Your task to perform on an android device: check android version Image 0: 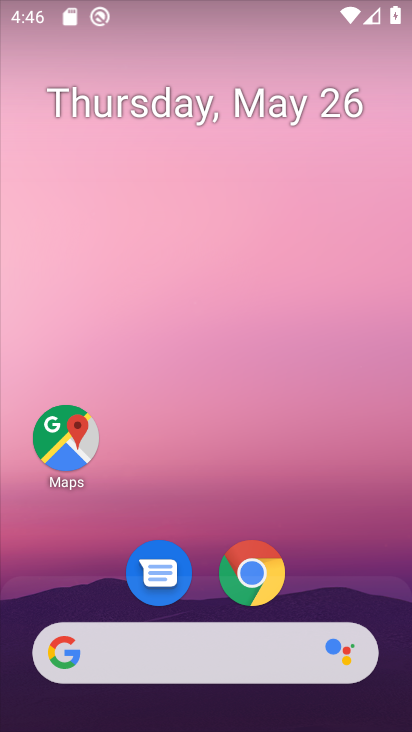
Step 0: drag from (325, 609) to (273, 263)
Your task to perform on an android device: check android version Image 1: 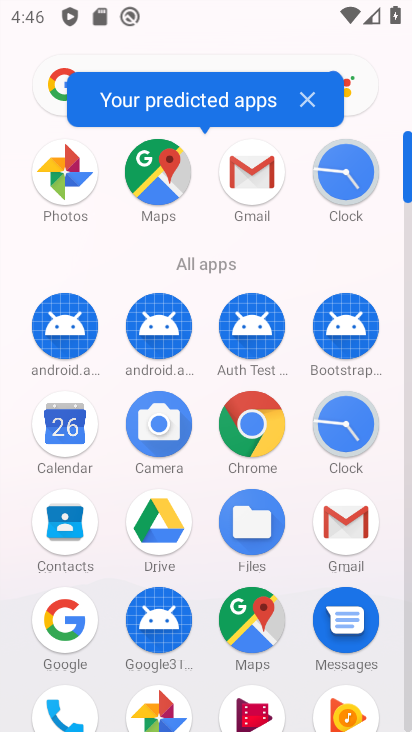
Step 1: drag from (285, 642) to (298, 335)
Your task to perform on an android device: check android version Image 2: 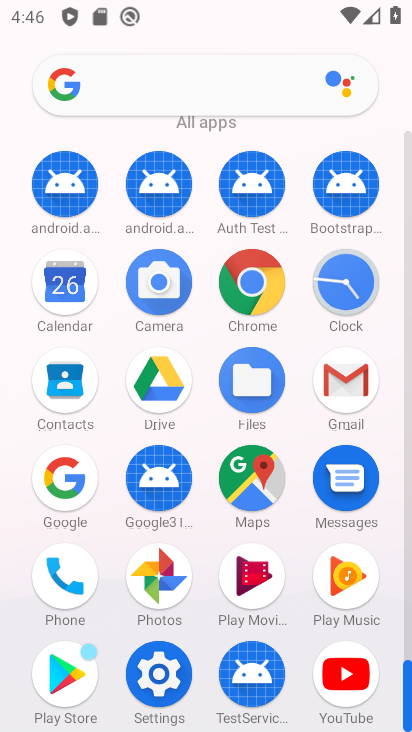
Step 2: click (156, 676)
Your task to perform on an android device: check android version Image 3: 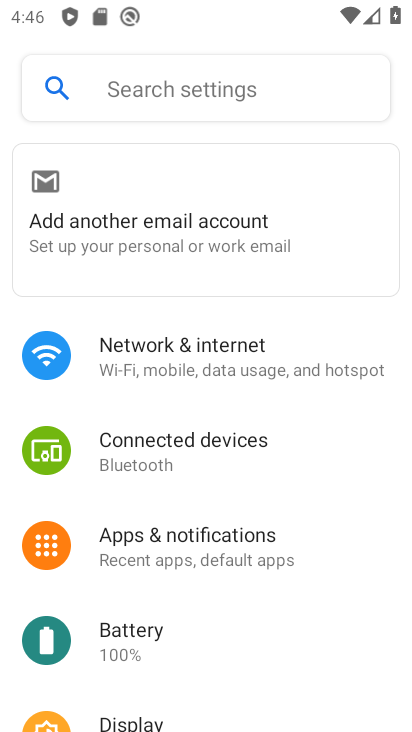
Step 3: drag from (234, 647) to (228, 162)
Your task to perform on an android device: check android version Image 4: 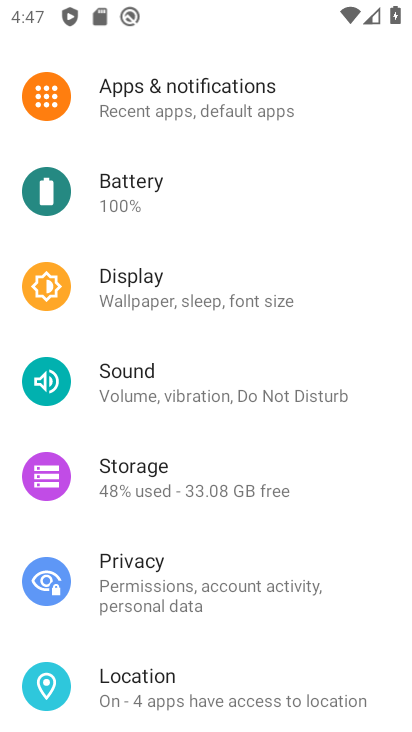
Step 4: drag from (198, 639) to (220, 312)
Your task to perform on an android device: check android version Image 5: 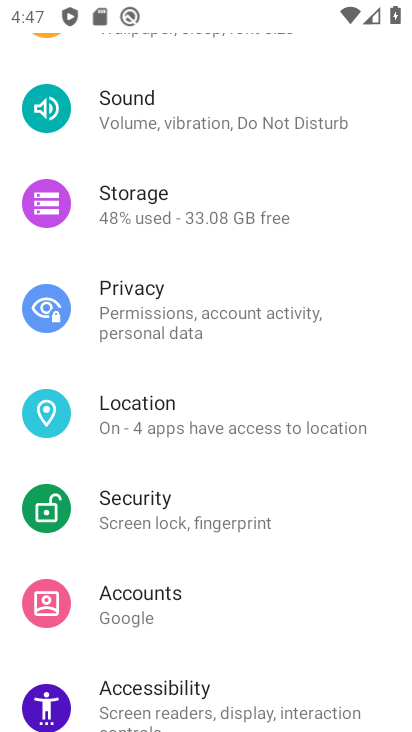
Step 5: drag from (212, 673) to (223, 341)
Your task to perform on an android device: check android version Image 6: 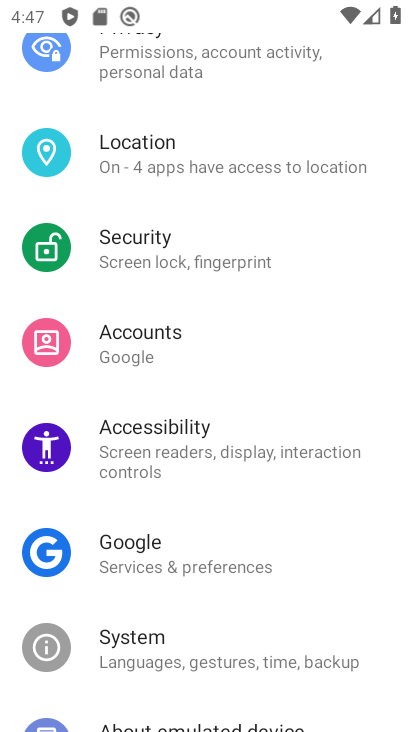
Step 6: drag from (177, 666) to (197, 359)
Your task to perform on an android device: check android version Image 7: 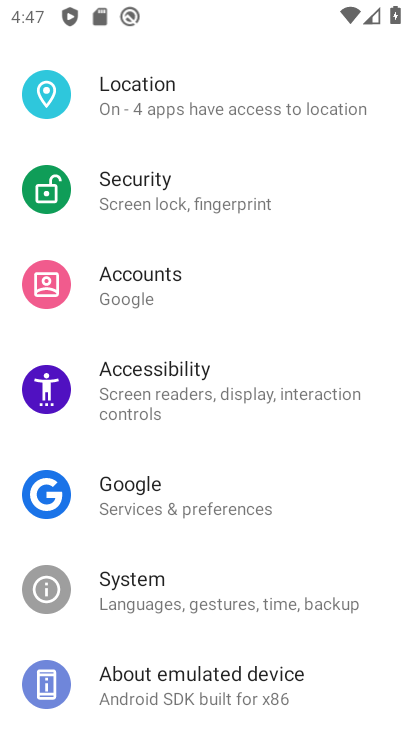
Step 7: click (189, 684)
Your task to perform on an android device: check android version Image 8: 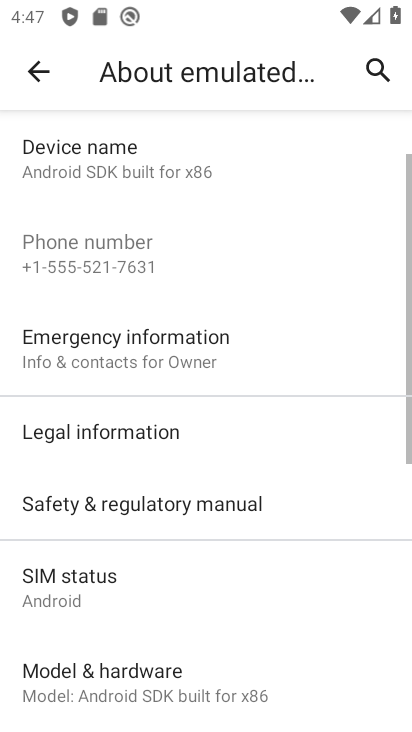
Step 8: drag from (181, 624) to (179, 175)
Your task to perform on an android device: check android version Image 9: 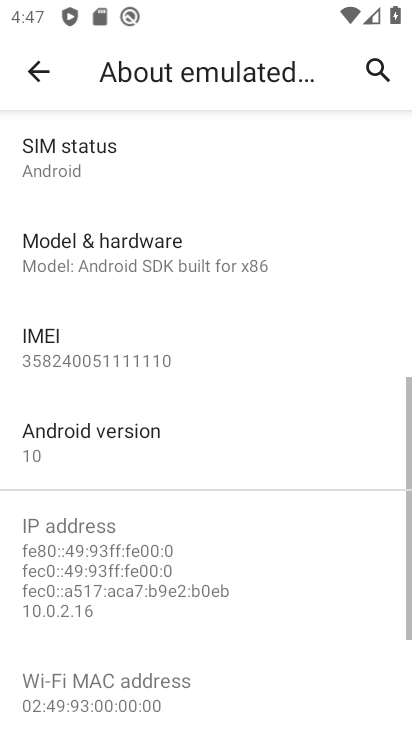
Step 9: click (89, 462)
Your task to perform on an android device: check android version Image 10: 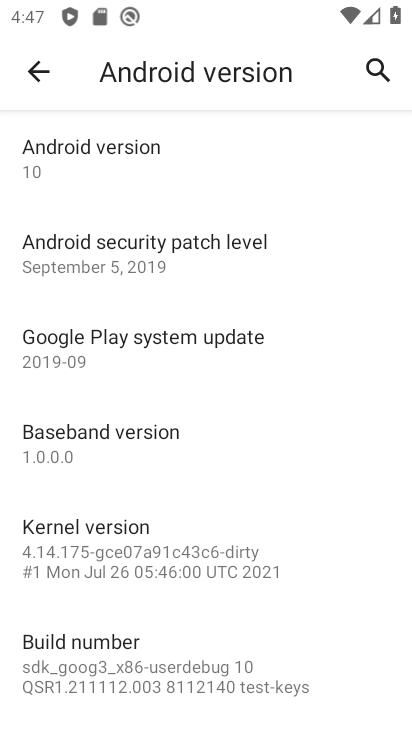
Step 10: task complete